Your task to perform on an android device: toggle translation in the chrome app Image 0: 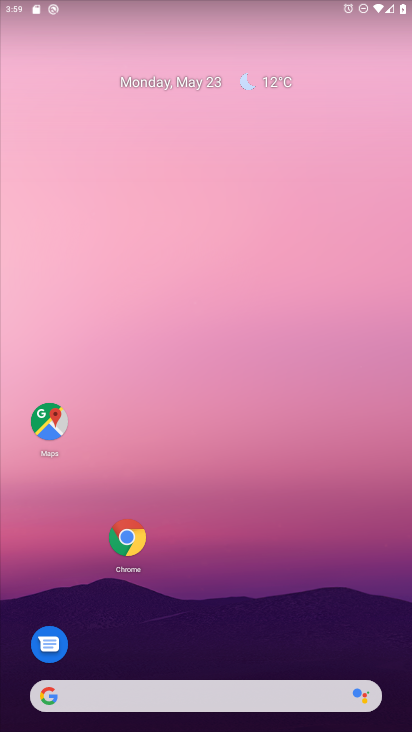
Step 0: click (133, 535)
Your task to perform on an android device: toggle translation in the chrome app Image 1: 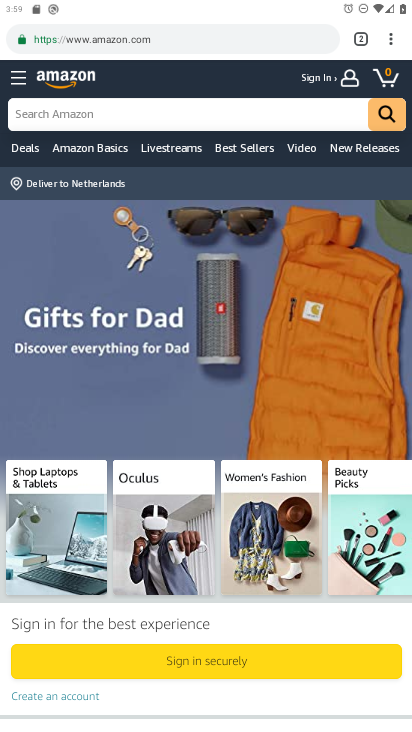
Step 1: drag from (397, 38) to (253, 466)
Your task to perform on an android device: toggle translation in the chrome app Image 2: 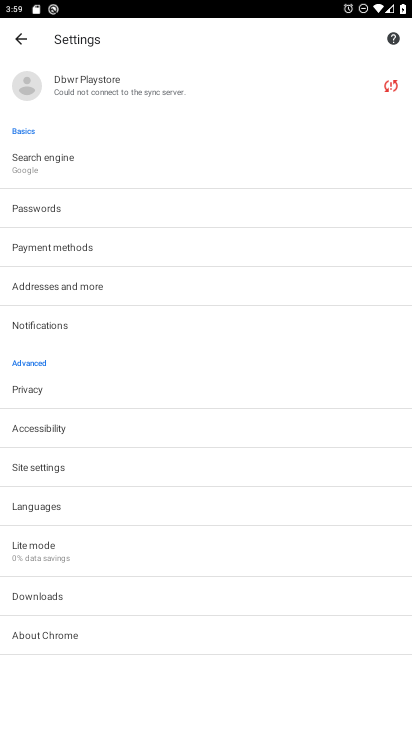
Step 2: drag from (144, 554) to (212, 154)
Your task to perform on an android device: toggle translation in the chrome app Image 3: 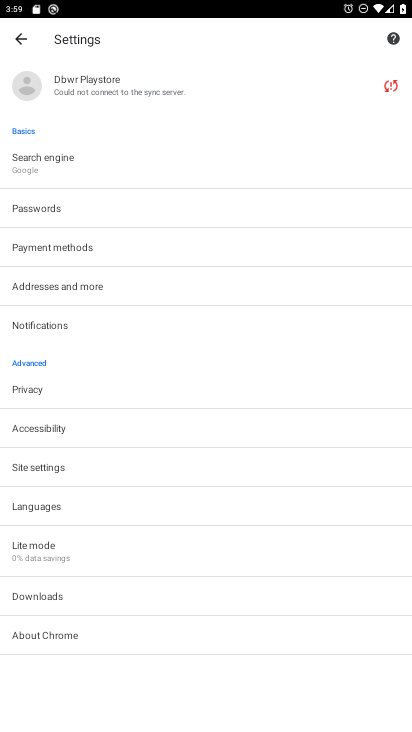
Step 3: click (74, 501)
Your task to perform on an android device: toggle translation in the chrome app Image 4: 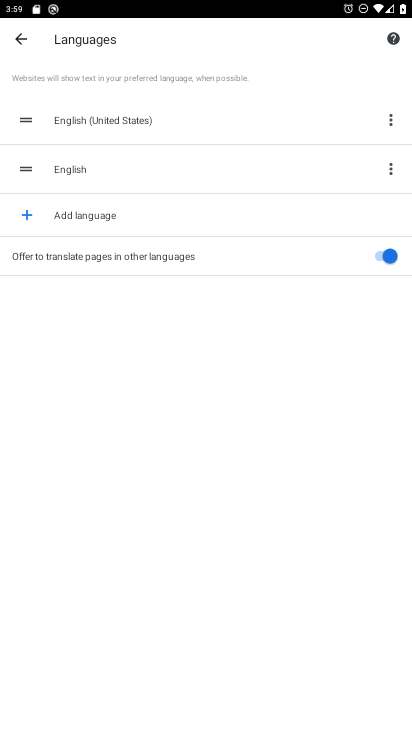
Step 4: click (386, 266)
Your task to perform on an android device: toggle translation in the chrome app Image 5: 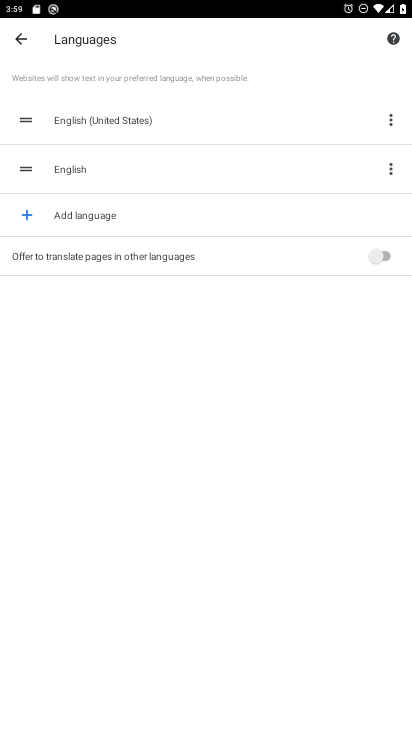
Step 5: task complete